Your task to perform on an android device: add a contact Image 0: 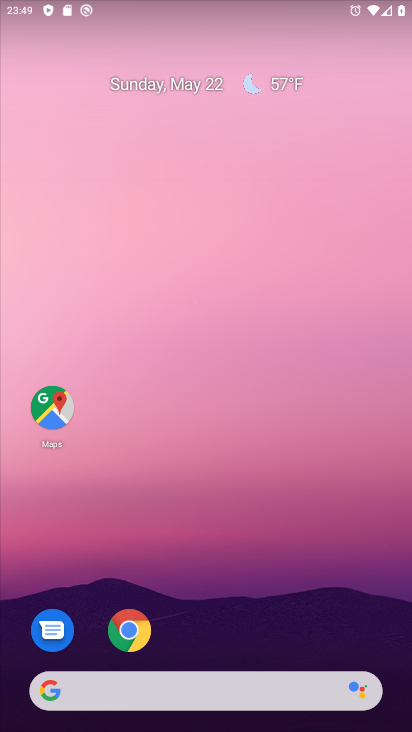
Step 0: drag from (298, 536) to (198, 23)
Your task to perform on an android device: add a contact Image 1: 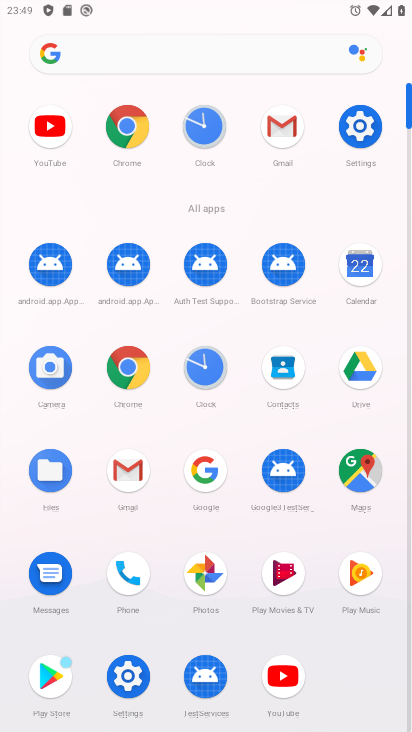
Step 1: click (282, 364)
Your task to perform on an android device: add a contact Image 2: 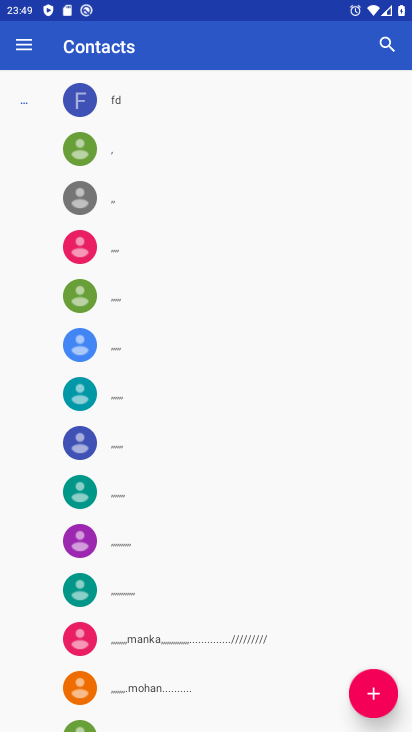
Step 2: click (387, 704)
Your task to perform on an android device: add a contact Image 3: 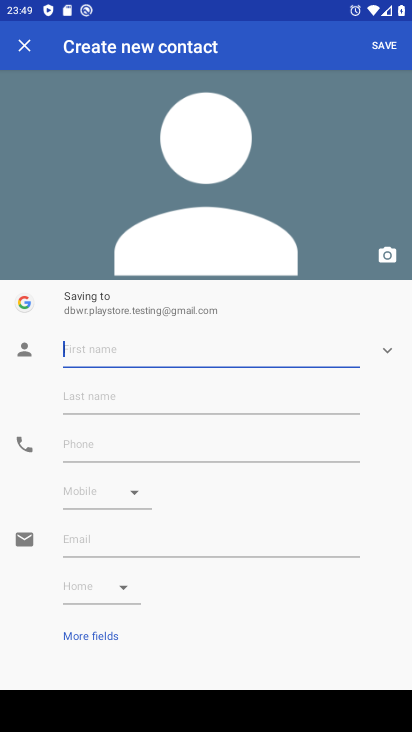
Step 3: type "dfgsdf"
Your task to perform on an android device: add a contact Image 4: 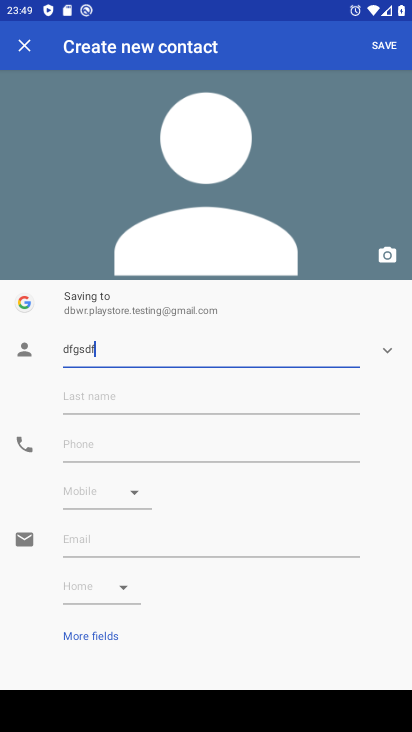
Step 4: click (222, 401)
Your task to perform on an android device: add a contact Image 5: 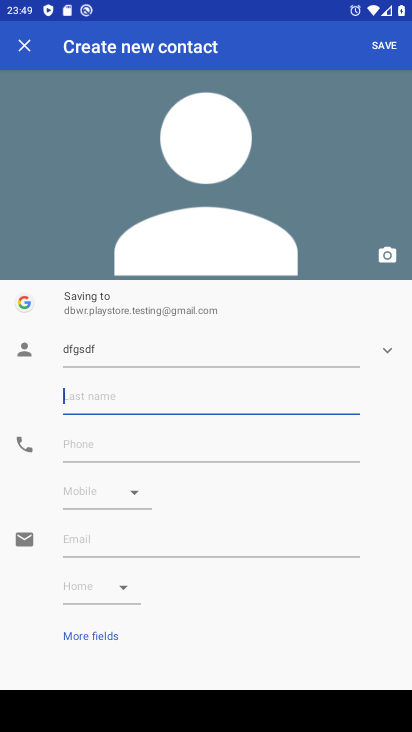
Step 5: type "dfgsdf"
Your task to perform on an android device: add a contact Image 6: 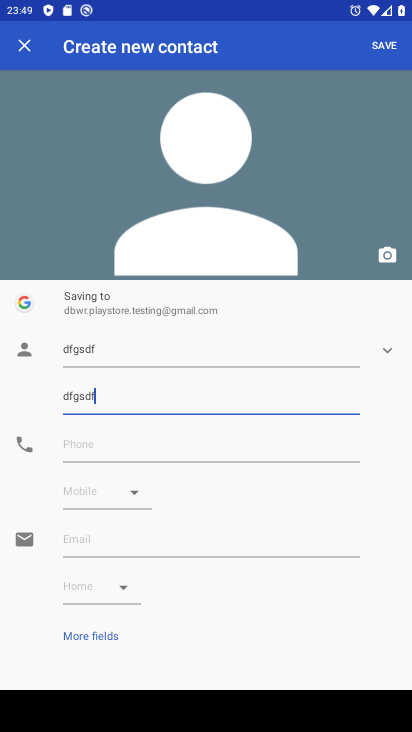
Step 6: type ""
Your task to perform on an android device: add a contact Image 7: 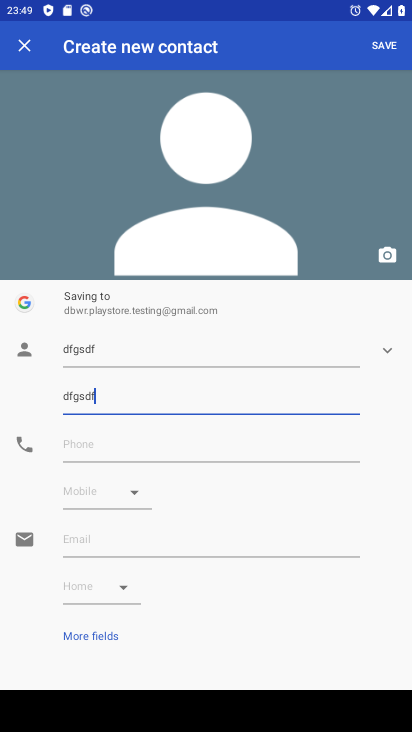
Step 7: click (271, 439)
Your task to perform on an android device: add a contact Image 8: 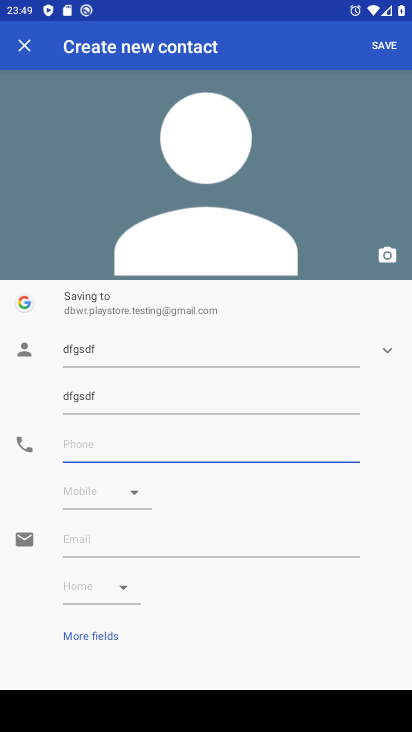
Step 8: type "4564656"
Your task to perform on an android device: add a contact Image 9: 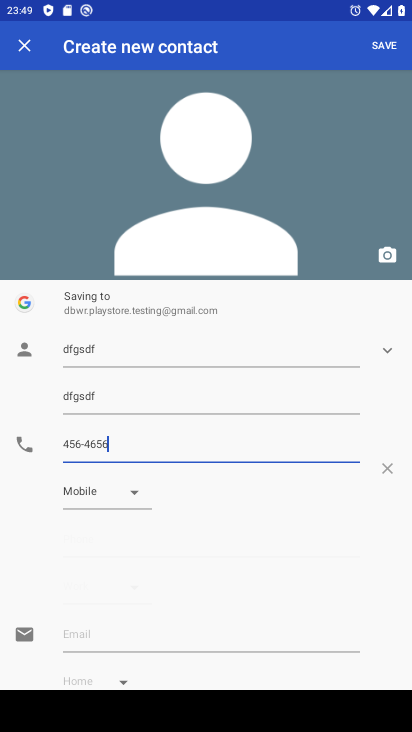
Step 9: type ""
Your task to perform on an android device: add a contact Image 10: 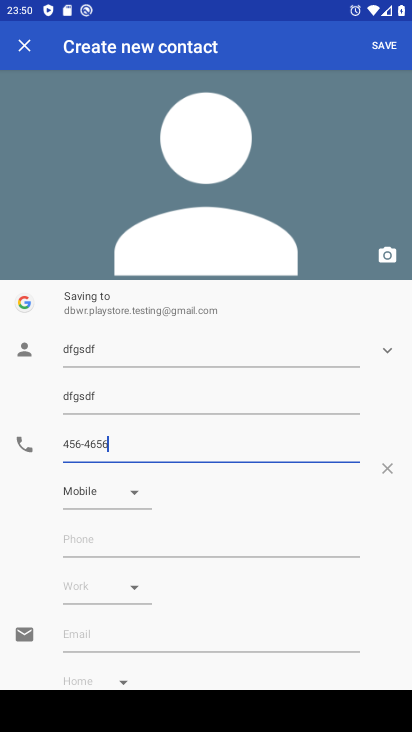
Step 10: click (385, 43)
Your task to perform on an android device: add a contact Image 11: 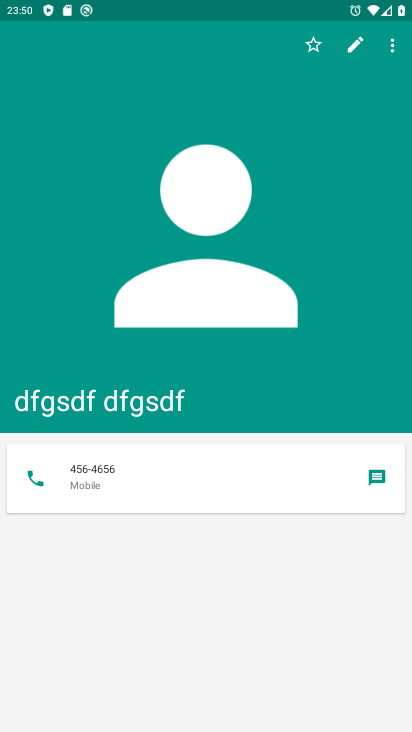
Step 11: task complete